Your task to perform on an android device: change the clock display to digital Image 0: 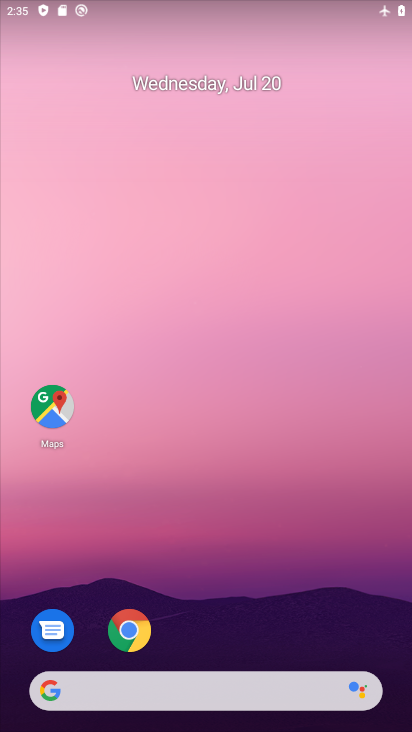
Step 0: drag from (270, 718) to (105, 159)
Your task to perform on an android device: change the clock display to digital Image 1: 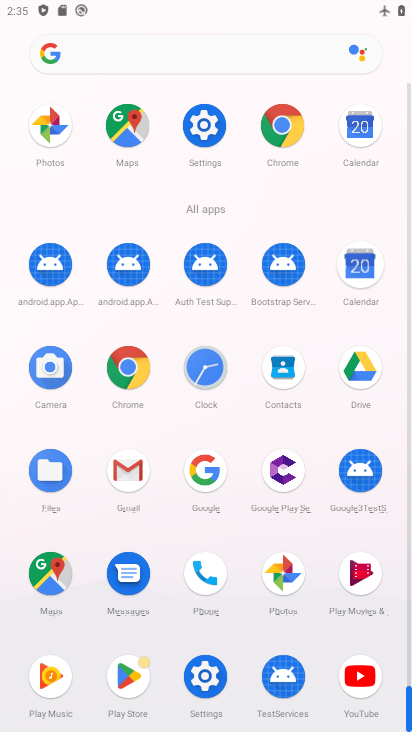
Step 1: click (354, 263)
Your task to perform on an android device: change the clock display to digital Image 2: 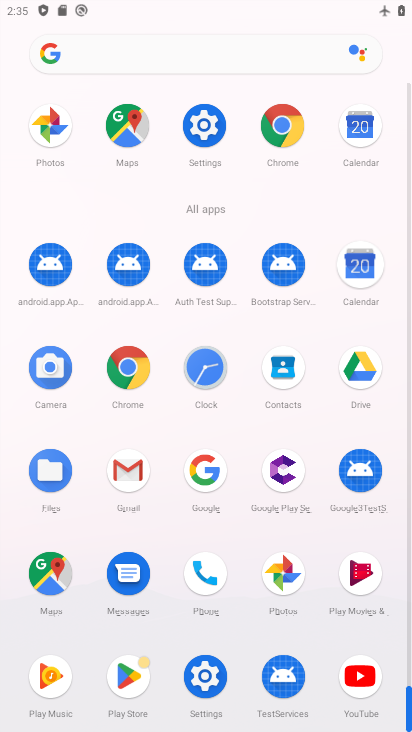
Step 2: click (355, 264)
Your task to perform on an android device: change the clock display to digital Image 3: 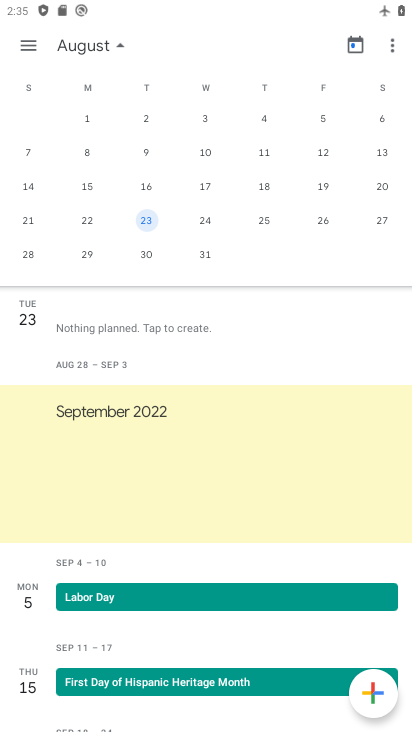
Step 3: press home button
Your task to perform on an android device: change the clock display to digital Image 4: 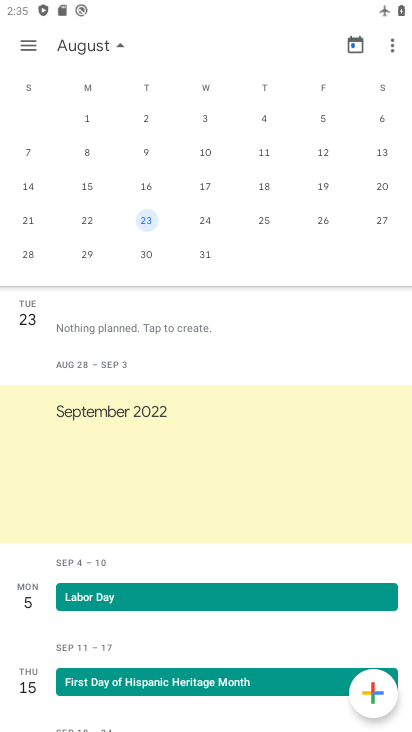
Step 4: press home button
Your task to perform on an android device: change the clock display to digital Image 5: 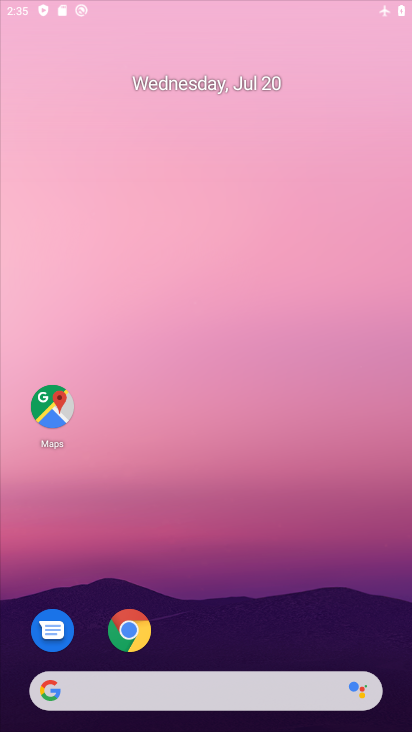
Step 5: press home button
Your task to perform on an android device: change the clock display to digital Image 6: 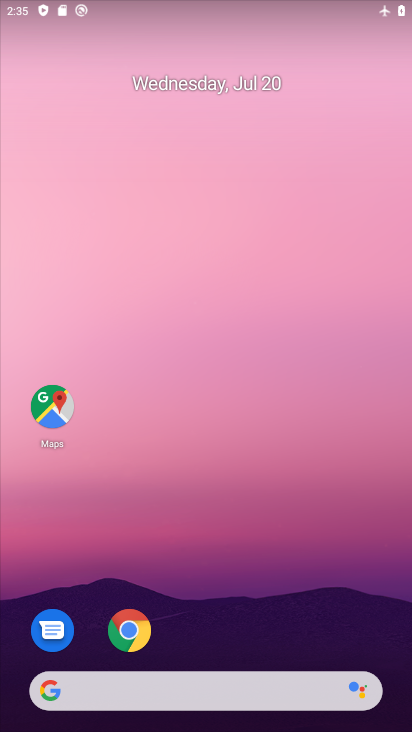
Step 6: drag from (241, 361) to (184, 51)
Your task to perform on an android device: change the clock display to digital Image 7: 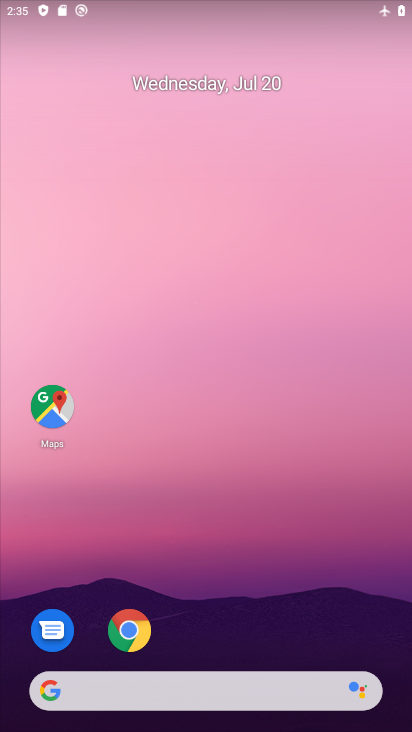
Step 7: drag from (283, 544) to (223, 16)
Your task to perform on an android device: change the clock display to digital Image 8: 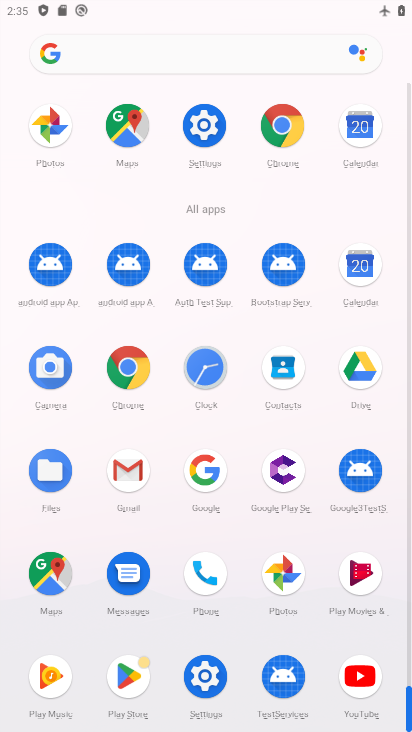
Step 8: click (215, 362)
Your task to perform on an android device: change the clock display to digital Image 9: 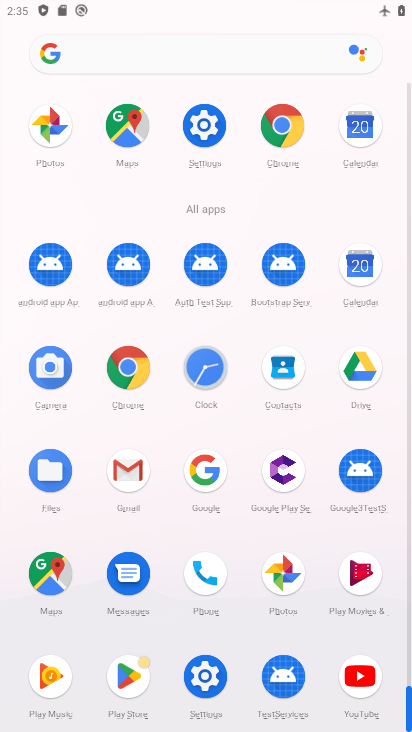
Step 9: click (215, 362)
Your task to perform on an android device: change the clock display to digital Image 10: 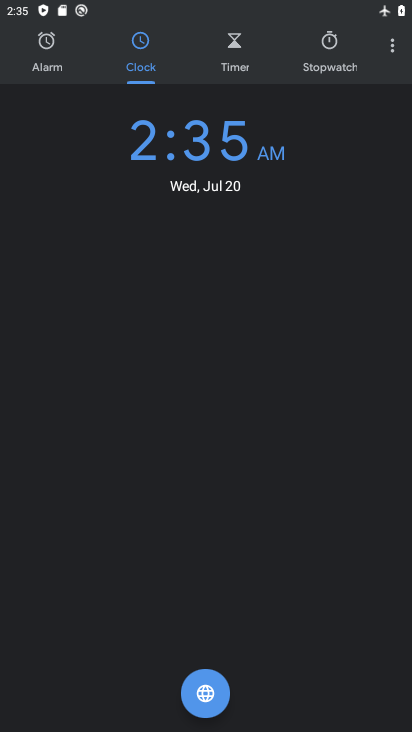
Step 10: click (392, 47)
Your task to perform on an android device: change the clock display to digital Image 11: 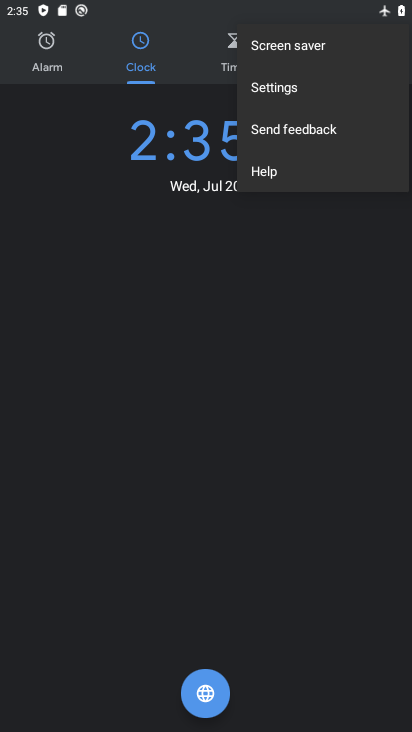
Step 11: click (266, 93)
Your task to perform on an android device: change the clock display to digital Image 12: 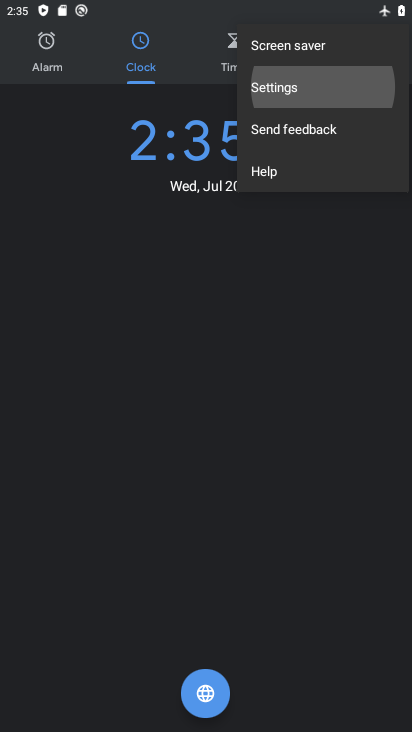
Step 12: click (265, 92)
Your task to perform on an android device: change the clock display to digital Image 13: 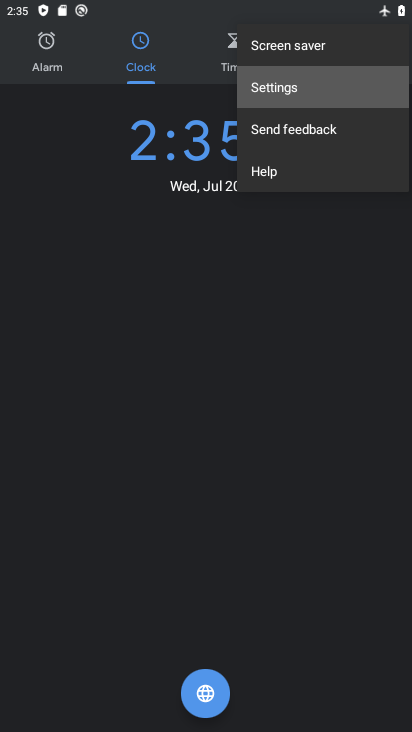
Step 13: click (269, 90)
Your task to perform on an android device: change the clock display to digital Image 14: 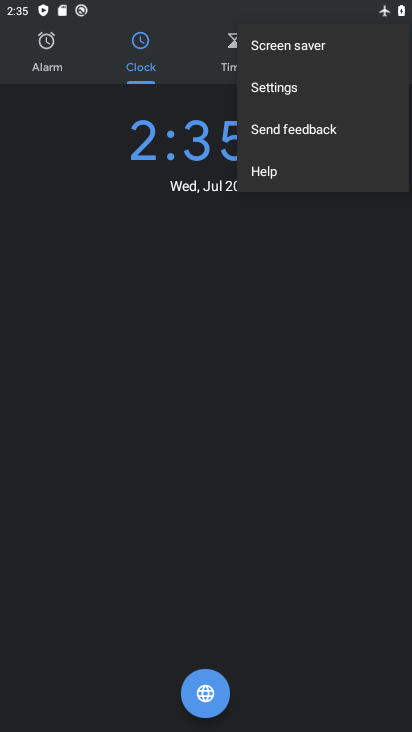
Step 14: click (270, 90)
Your task to perform on an android device: change the clock display to digital Image 15: 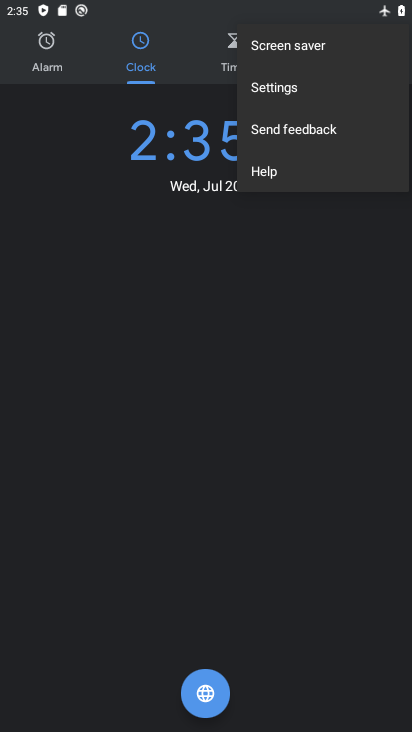
Step 15: click (270, 90)
Your task to perform on an android device: change the clock display to digital Image 16: 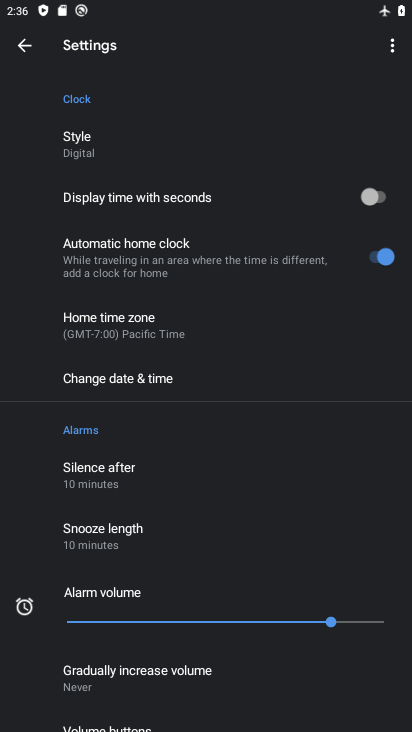
Step 16: task complete